Your task to perform on an android device: change alarm snooze length Image 0: 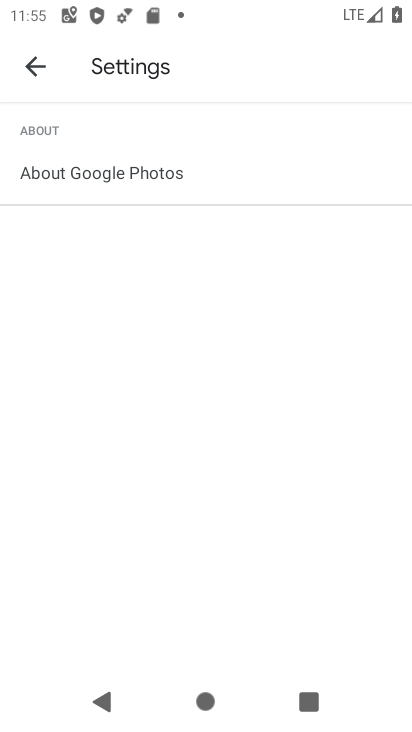
Step 0: press home button
Your task to perform on an android device: change alarm snooze length Image 1: 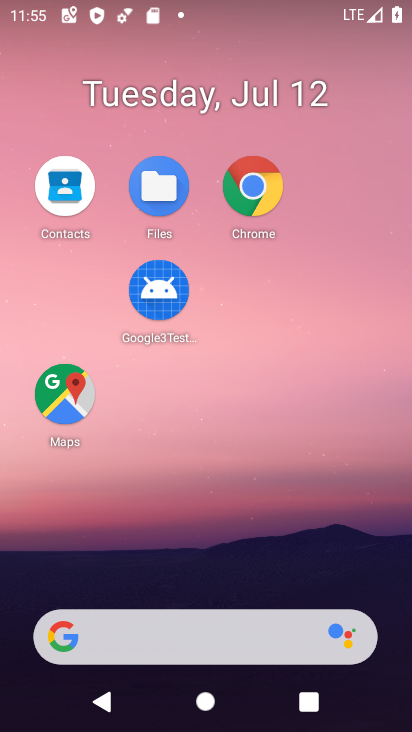
Step 1: drag from (273, 580) to (174, 29)
Your task to perform on an android device: change alarm snooze length Image 2: 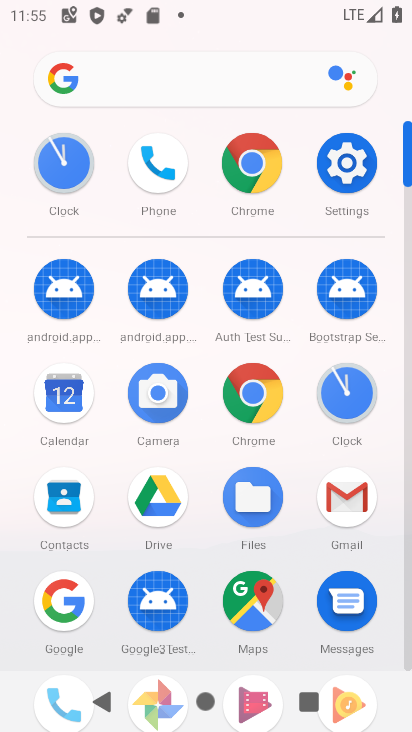
Step 2: click (367, 383)
Your task to perform on an android device: change alarm snooze length Image 3: 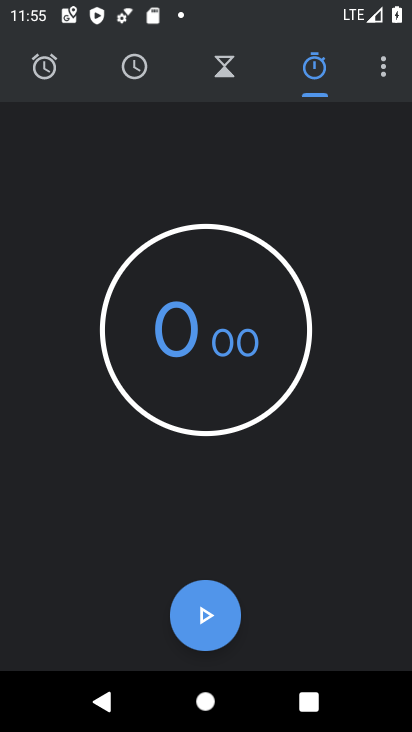
Step 3: click (378, 76)
Your task to perform on an android device: change alarm snooze length Image 4: 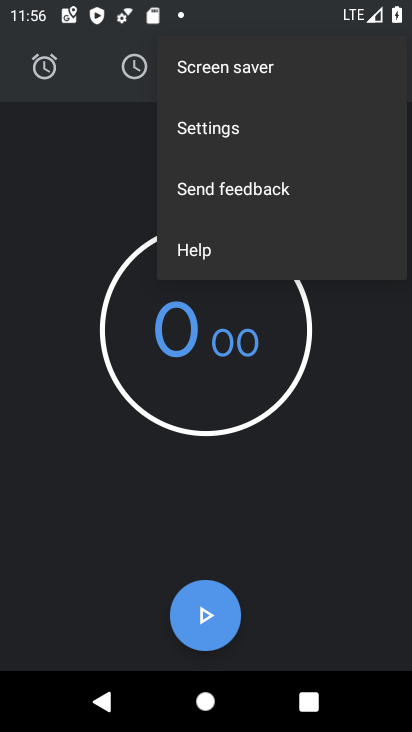
Step 4: click (264, 122)
Your task to perform on an android device: change alarm snooze length Image 5: 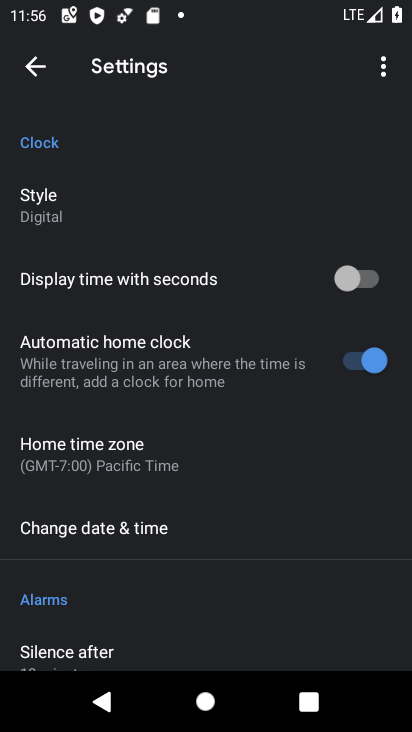
Step 5: drag from (212, 512) to (53, 69)
Your task to perform on an android device: change alarm snooze length Image 6: 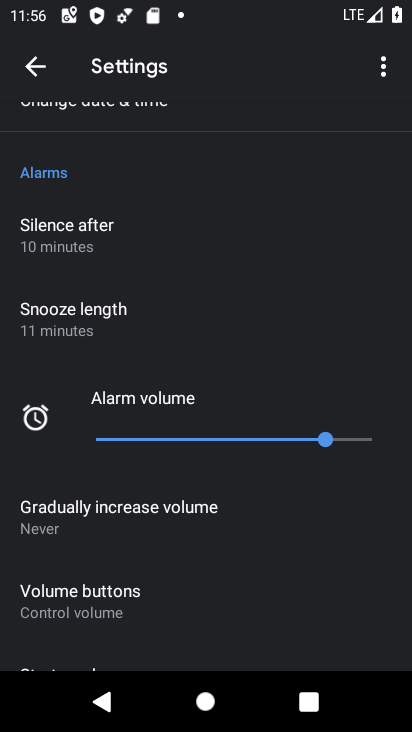
Step 6: click (56, 312)
Your task to perform on an android device: change alarm snooze length Image 7: 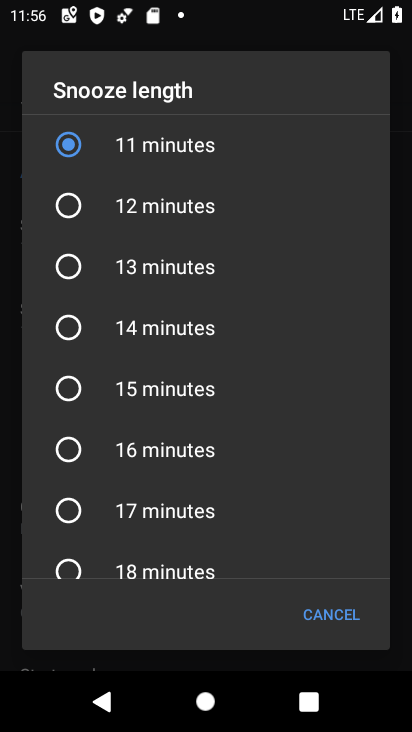
Step 7: click (96, 199)
Your task to perform on an android device: change alarm snooze length Image 8: 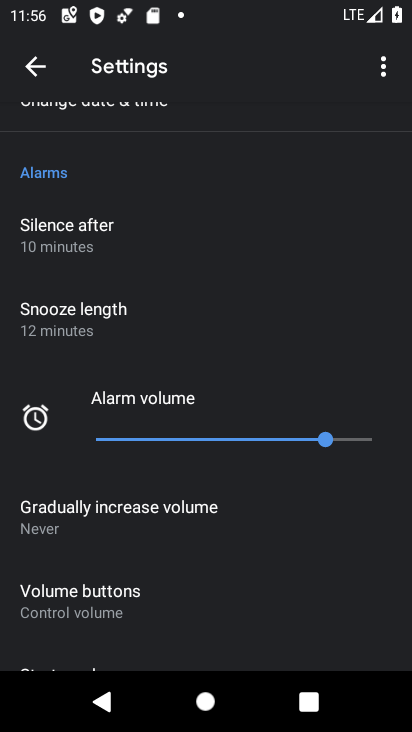
Step 8: task complete